Your task to perform on an android device: Open Google Chrome and open the bookmarks view Image 0: 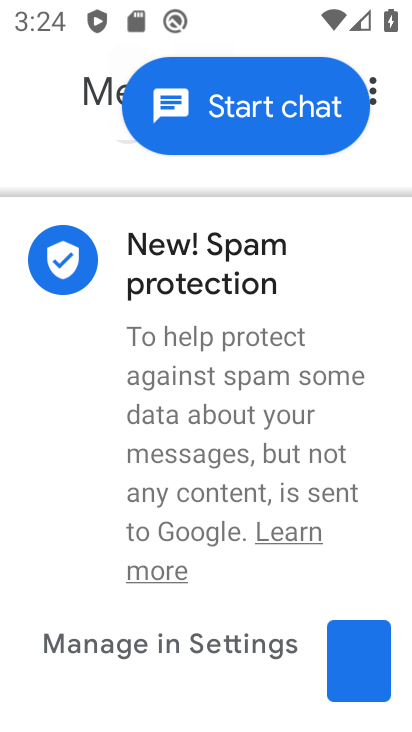
Step 0: press home button
Your task to perform on an android device: Open Google Chrome and open the bookmarks view Image 1: 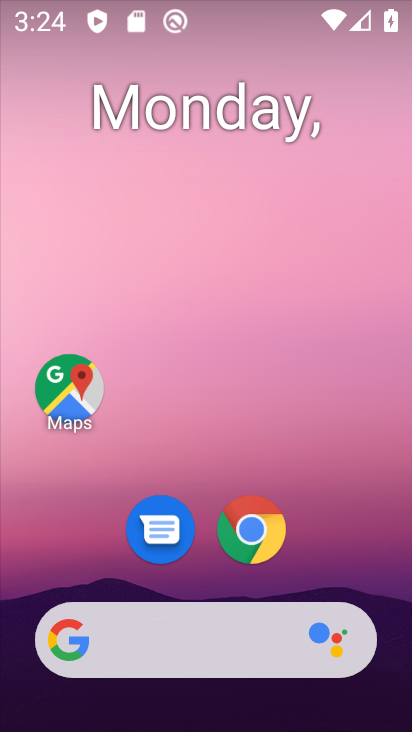
Step 1: click (262, 522)
Your task to perform on an android device: Open Google Chrome and open the bookmarks view Image 2: 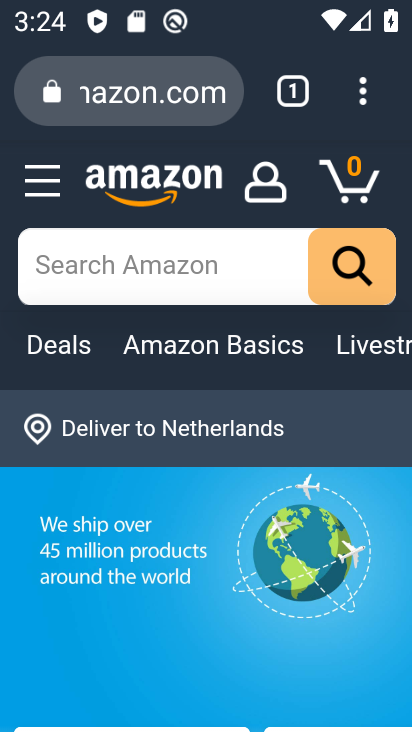
Step 2: click (358, 96)
Your task to perform on an android device: Open Google Chrome and open the bookmarks view Image 3: 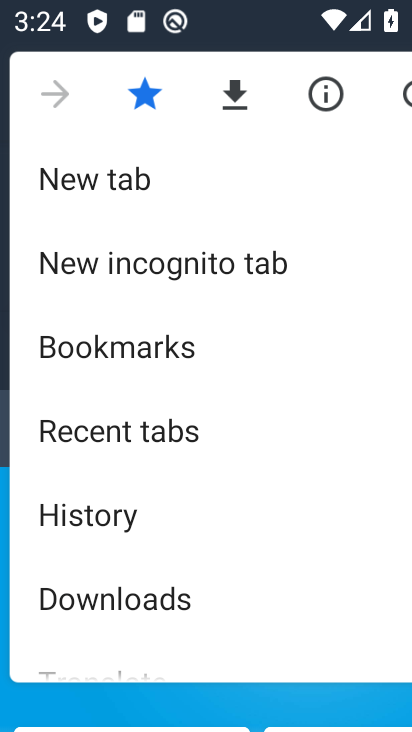
Step 3: drag from (194, 541) to (204, 477)
Your task to perform on an android device: Open Google Chrome and open the bookmarks view Image 4: 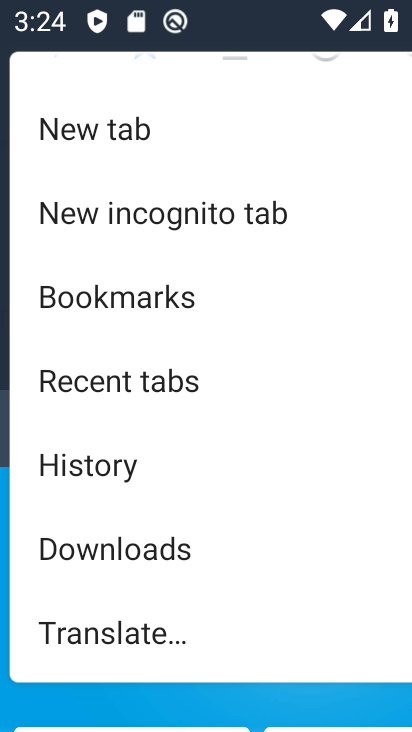
Step 4: click (190, 317)
Your task to perform on an android device: Open Google Chrome and open the bookmarks view Image 5: 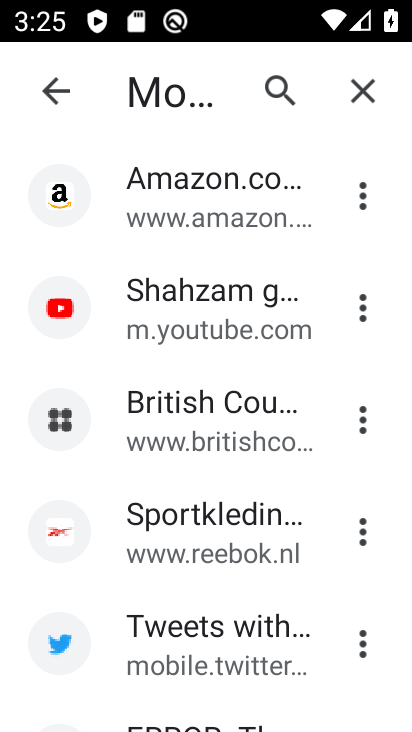
Step 5: task complete